Your task to perform on an android device: turn off picture-in-picture Image 0: 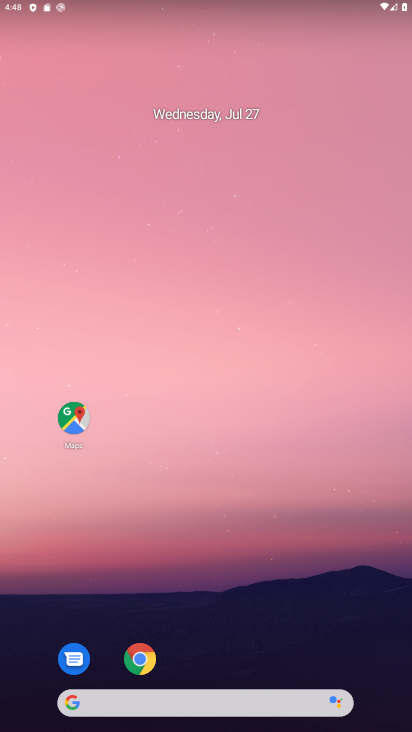
Step 0: click (134, 655)
Your task to perform on an android device: turn off picture-in-picture Image 1: 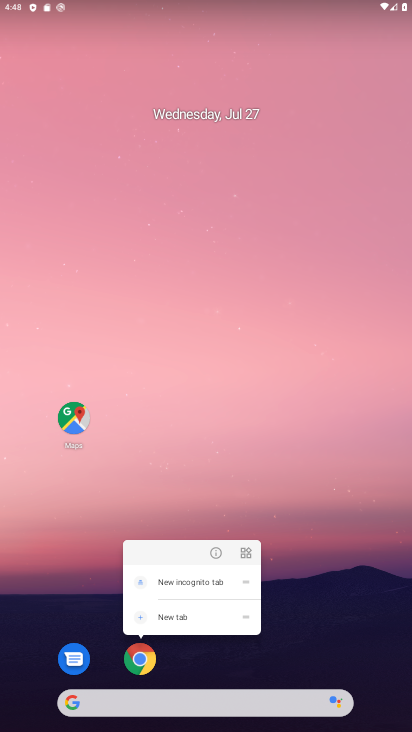
Step 1: click (216, 555)
Your task to perform on an android device: turn off picture-in-picture Image 2: 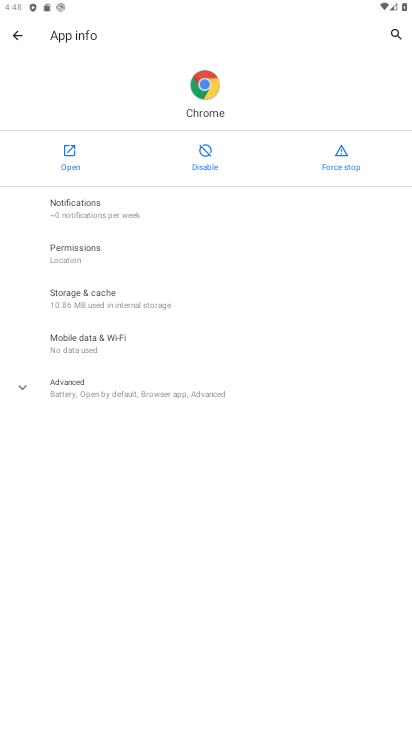
Step 2: click (58, 386)
Your task to perform on an android device: turn off picture-in-picture Image 3: 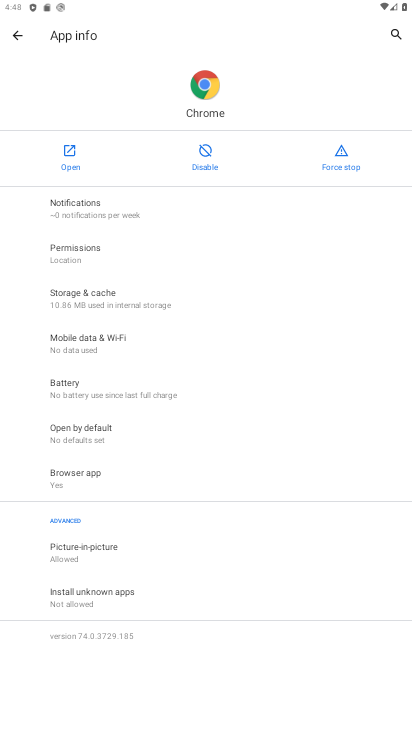
Step 3: click (88, 546)
Your task to perform on an android device: turn off picture-in-picture Image 4: 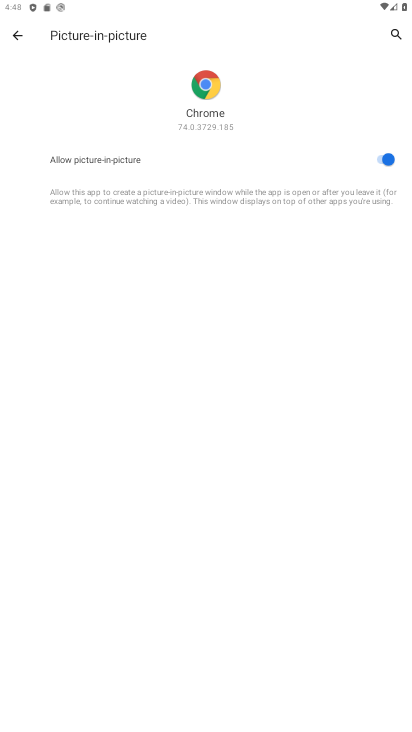
Step 4: click (306, 167)
Your task to perform on an android device: turn off picture-in-picture Image 5: 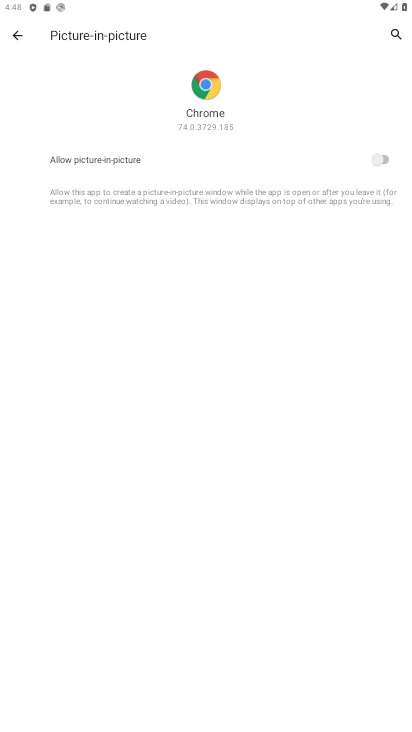
Step 5: task complete